Your task to perform on an android device: toggle location history Image 0: 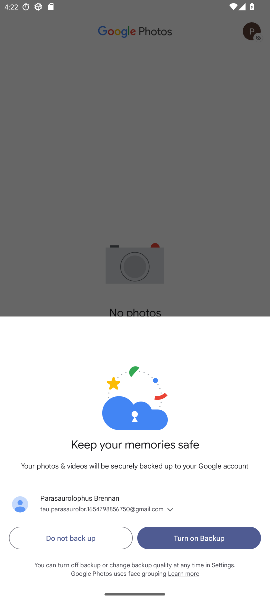
Step 0: press home button
Your task to perform on an android device: toggle location history Image 1: 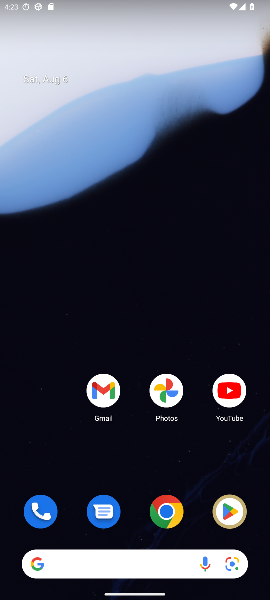
Step 1: drag from (115, 453) to (135, 125)
Your task to perform on an android device: toggle location history Image 2: 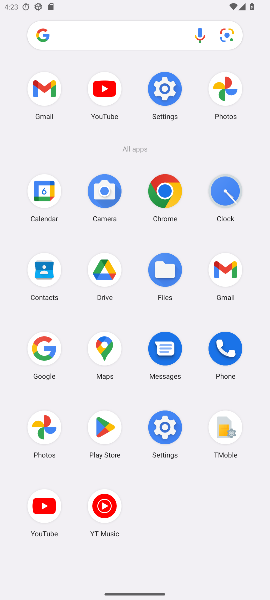
Step 2: click (166, 439)
Your task to perform on an android device: toggle location history Image 3: 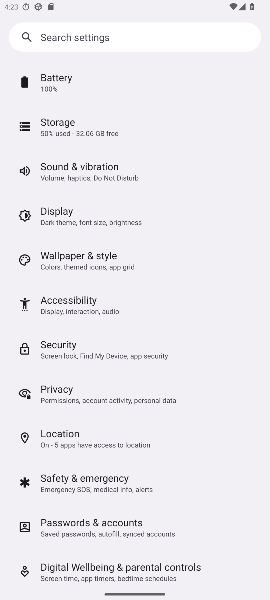
Step 3: click (78, 438)
Your task to perform on an android device: toggle location history Image 4: 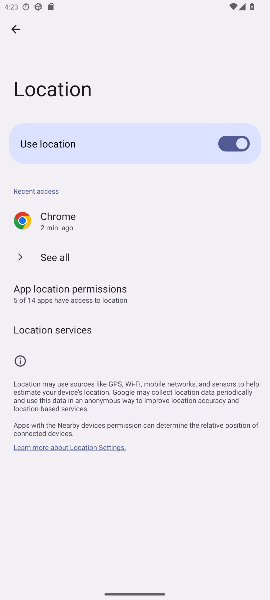
Step 4: click (77, 330)
Your task to perform on an android device: toggle location history Image 5: 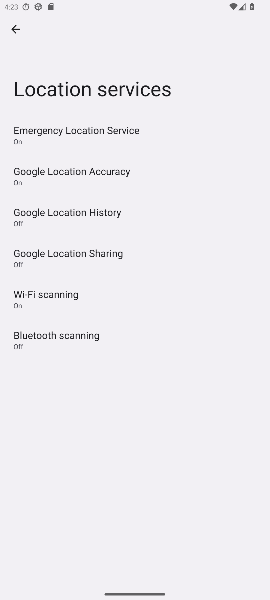
Step 5: click (96, 214)
Your task to perform on an android device: toggle location history Image 6: 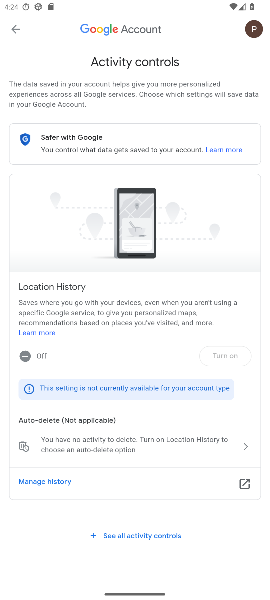
Step 6: task complete